Your task to perform on an android device: Go to battery settings Image 0: 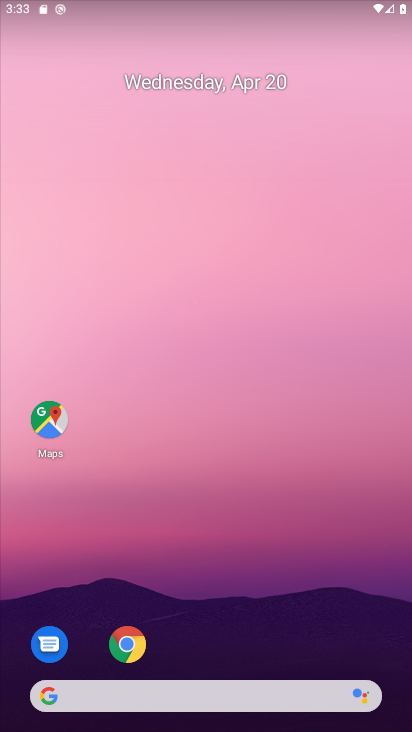
Step 0: drag from (273, 574) to (399, 129)
Your task to perform on an android device: Go to battery settings Image 1: 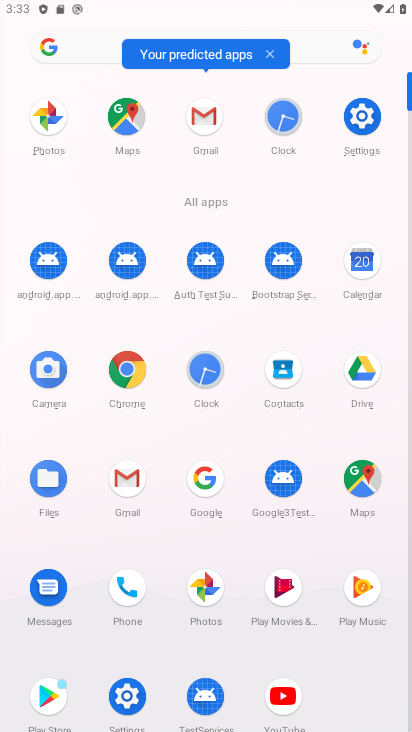
Step 1: click (128, 709)
Your task to perform on an android device: Go to battery settings Image 2: 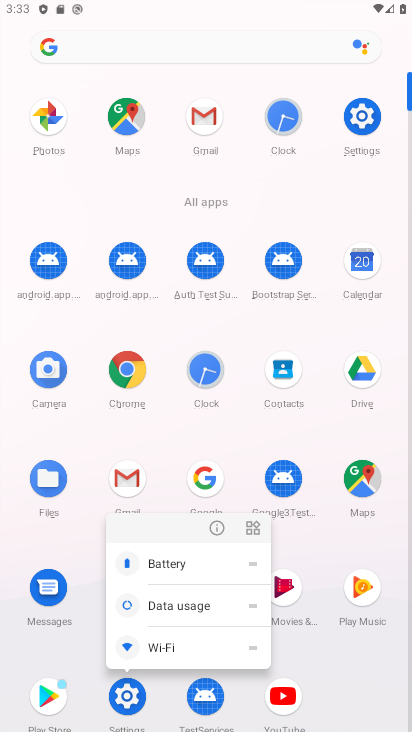
Step 2: click (128, 699)
Your task to perform on an android device: Go to battery settings Image 3: 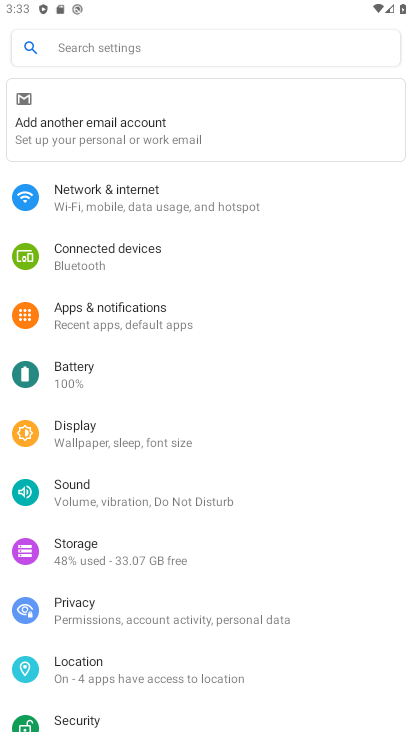
Step 3: click (128, 387)
Your task to perform on an android device: Go to battery settings Image 4: 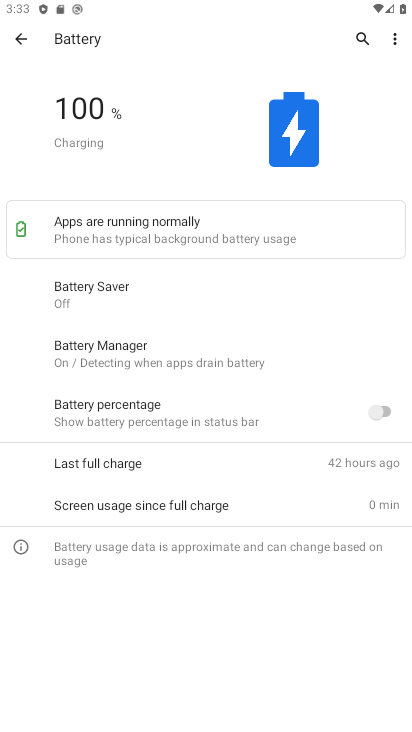
Step 4: task complete